Your task to perform on an android device: Find coffee shops on Maps Image 0: 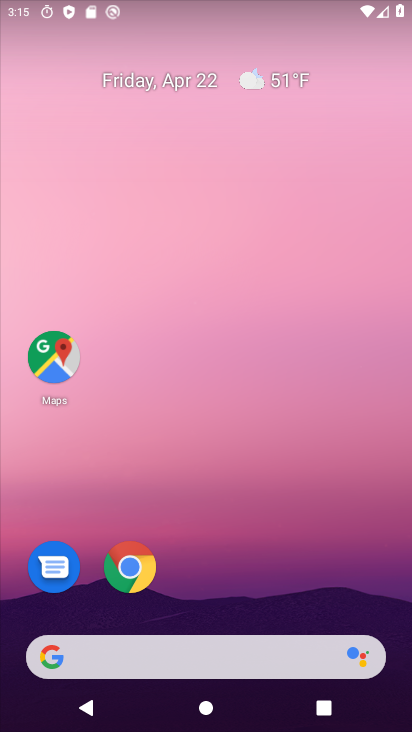
Step 0: click (50, 358)
Your task to perform on an android device: Find coffee shops on Maps Image 1: 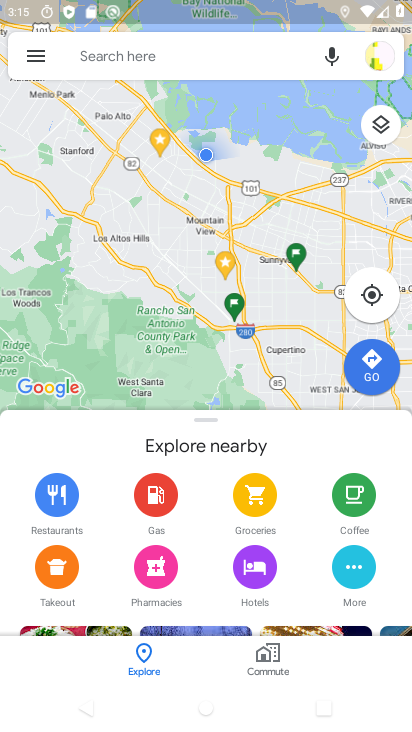
Step 1: click (172, 56)
Your task to perform on an android device: Find coffee shops on Maps Image 2: 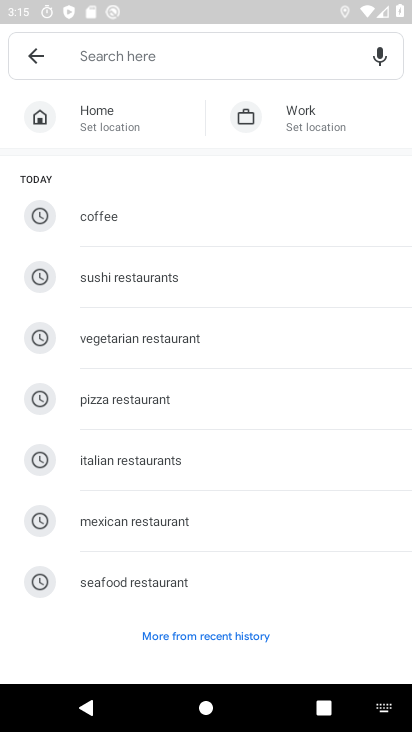
Step 2: type "coffee shops"
Your task to perform on an android device: Find coffee shops on Maps Image 3: 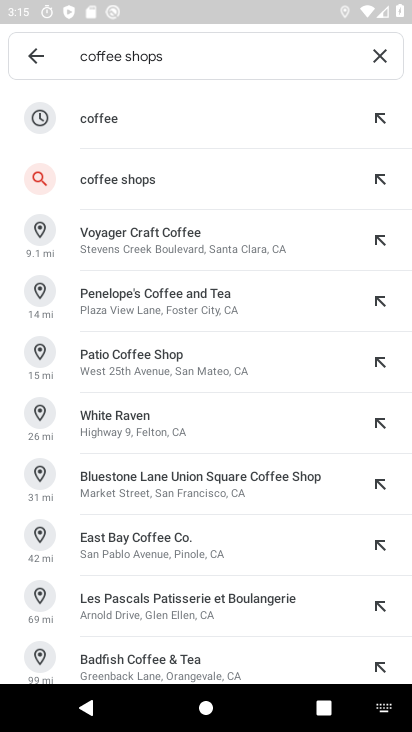
Step 3: click (149, 179)
Your task to perform on an android device: Find coffee shops on Maps Image 4: 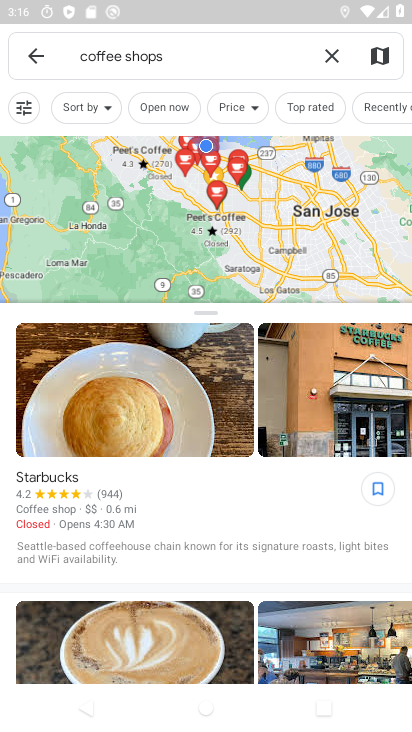
Step 4: task complete